Your task to perform on an android device: turn on location history Image 0: 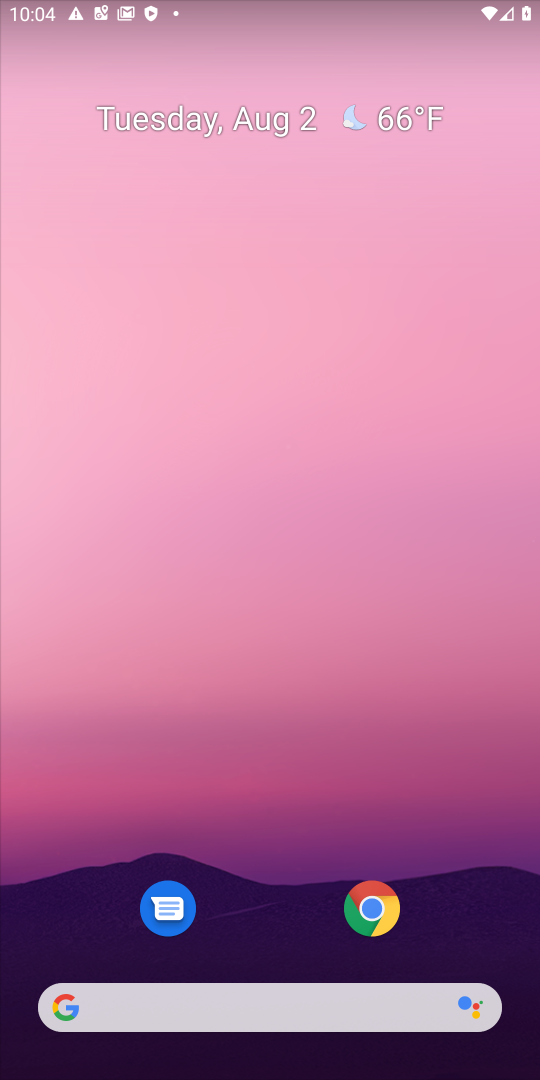
Step 0: drag from (77, 774) to (273, 229)
Your task to perform on an android device: turn on location history Image 1: 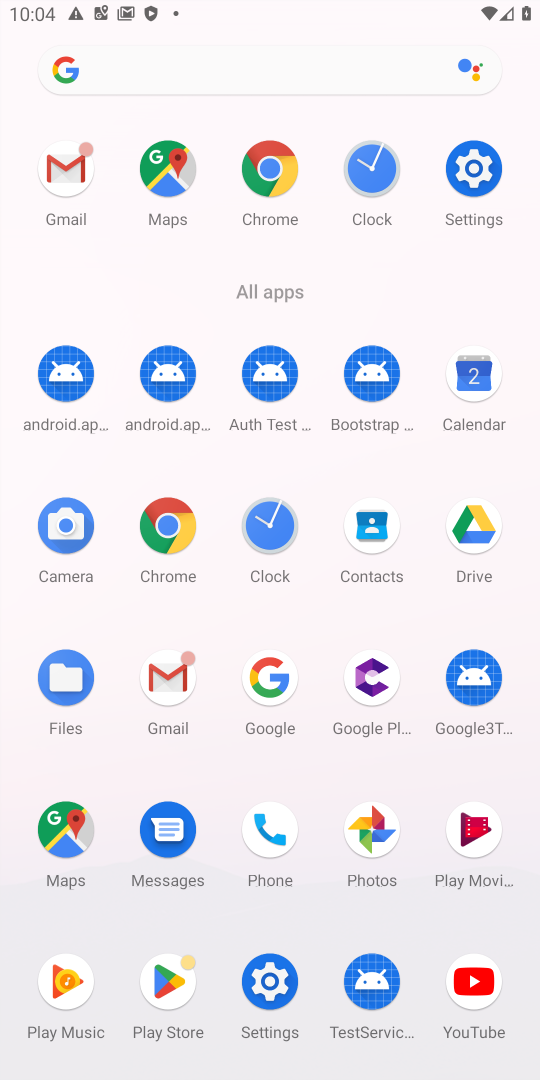
Step 1: click (471, 173)
Your task to perform on an android device: turn on location history Image 2: 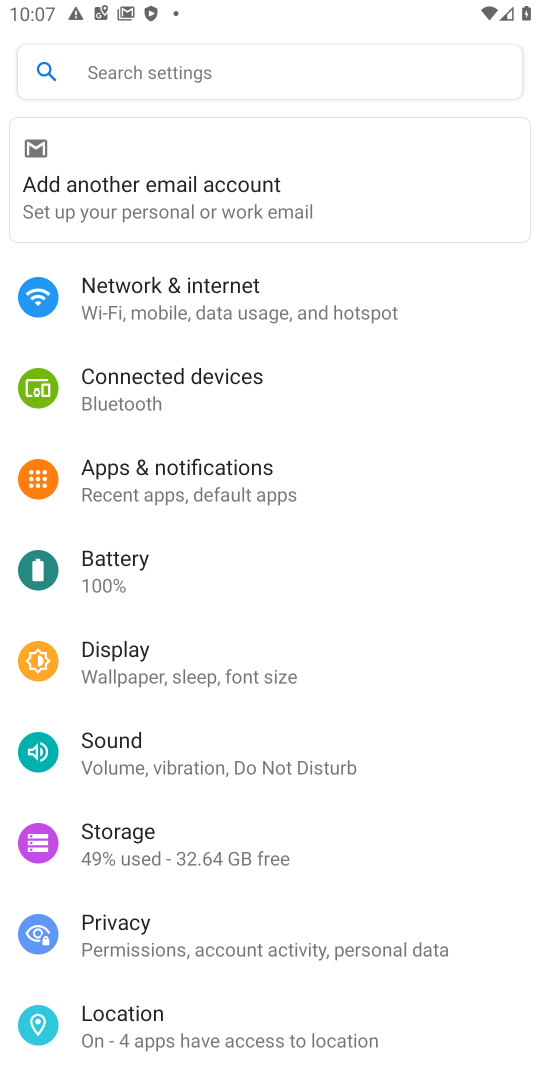
Step 2: press home button
Your task to perform on an android device: turn on location history Image 3: 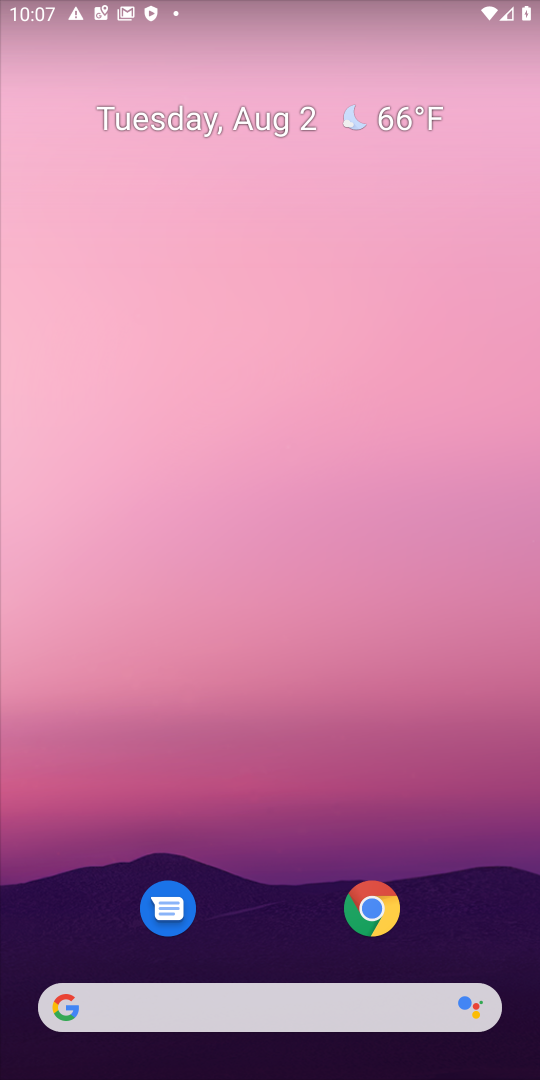
Step 3: drag from (43, 414) to (157, 21)
Your task to perform on an android device: turn on location history Image 4: 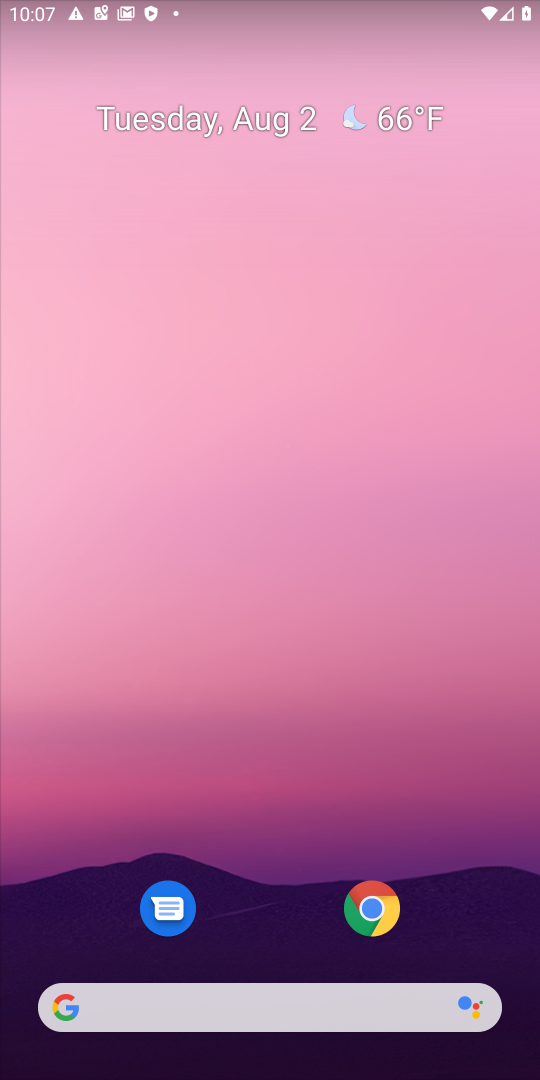
Step 4: drag from (91, 550) to (217, 45)
Your task to perform on an android device: turn on location history Image 5: 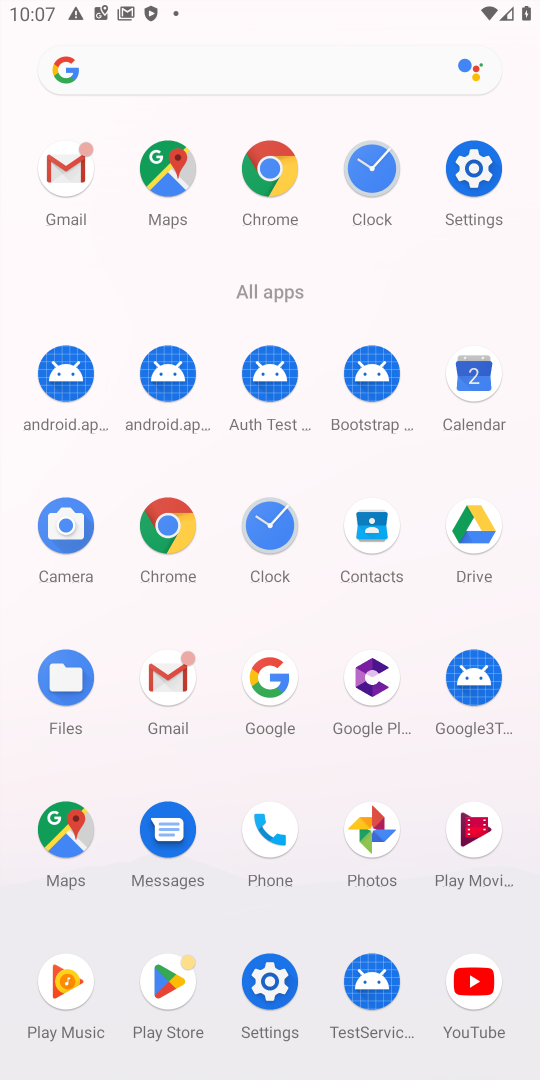
Step 5: click (469, 162)
Your task to perform on an android device: turn on location history Image 6: 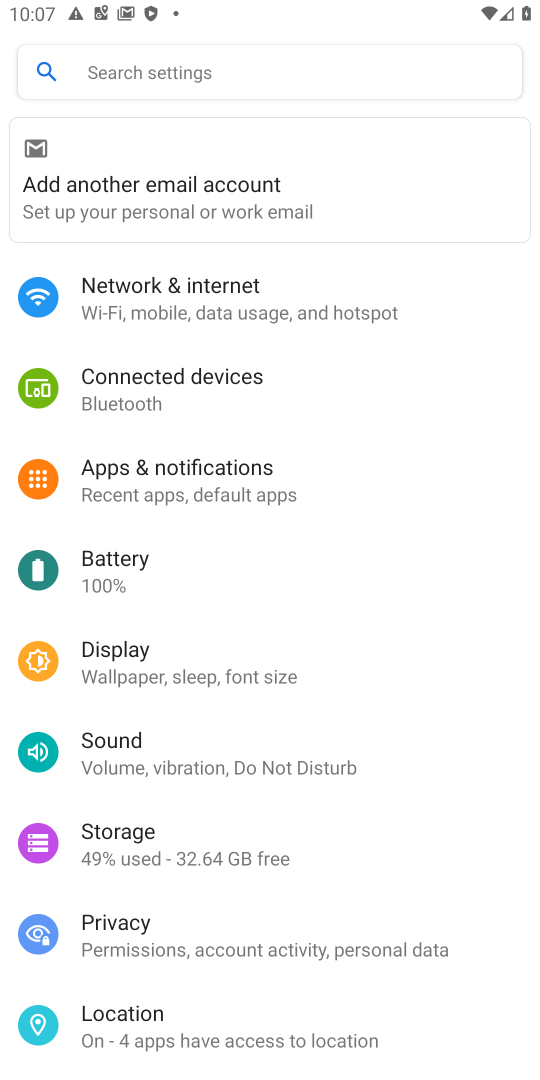
Step 6: click (137, 1023)
Your task to perform on an android device: turn on location history Image 7: 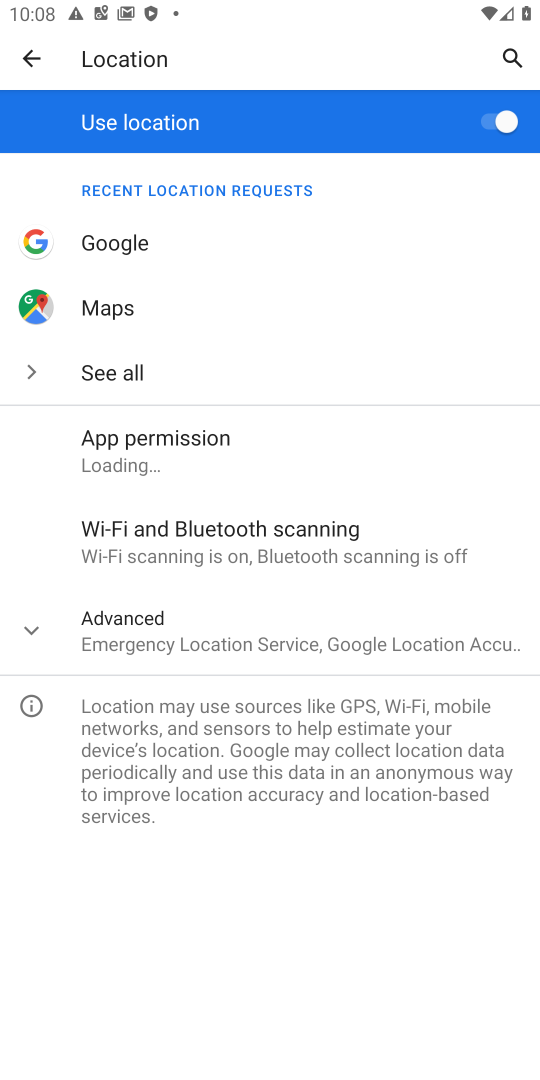
Step 7: click (209, 642)
Your task to perform on an android device: turn on location history Image 8: 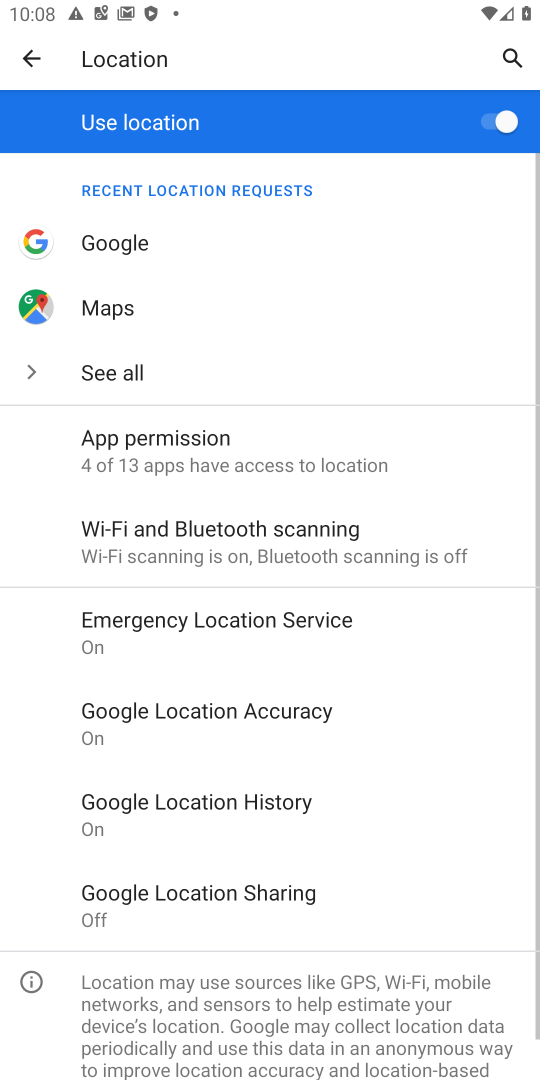
Step 8: click (151, 807)
Your task to perform on an android device: turn on location history Image 9: 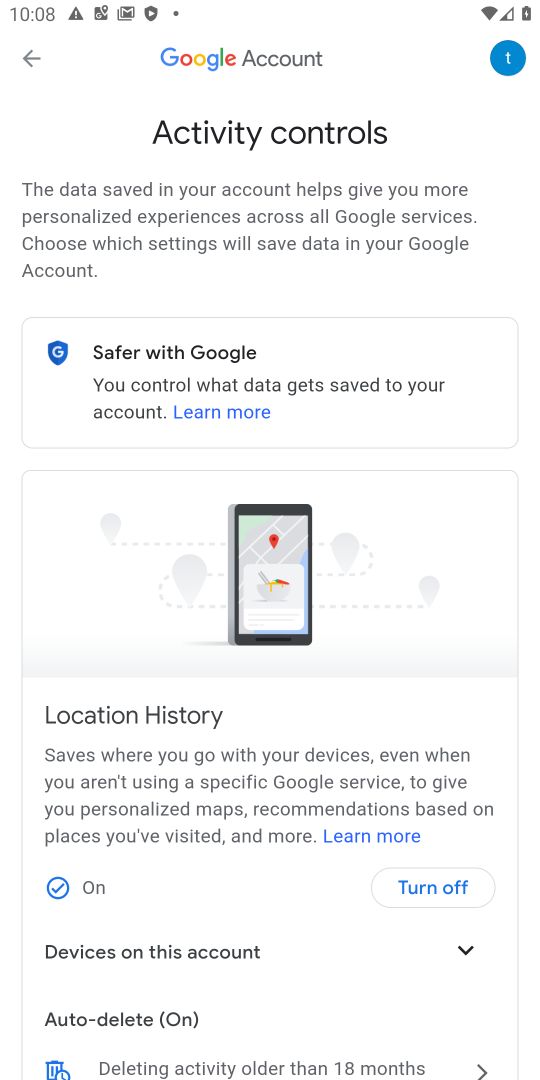
Step 9: task complete